Your task to perform on an android device: Show me popular games on the Play Store Image 0: 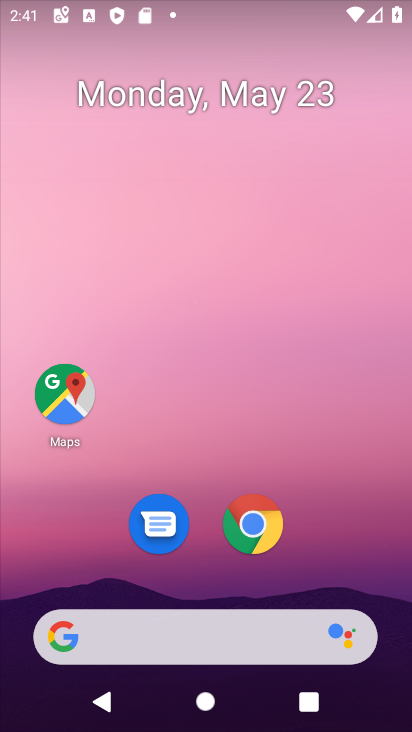
Step 0: drag from (196, 436) to (247, 0)
Your task to perform on an android device: Show me popular games on the Play Store Image 1: 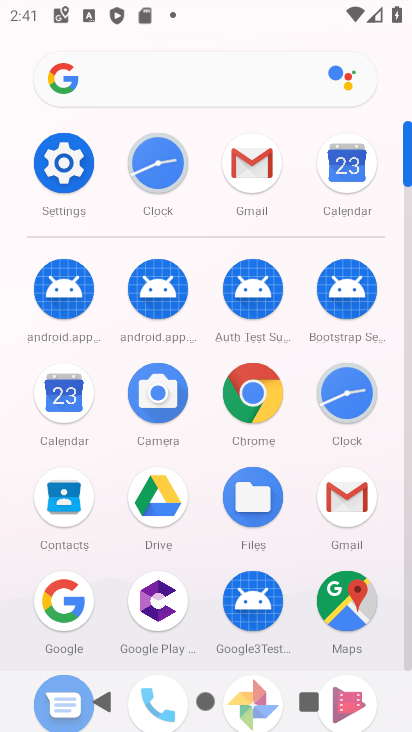
Step 1: drag from (191, 509) to (239, 245)
Your task to perform on an android device: Show me popular games on the Play Store Image 2: 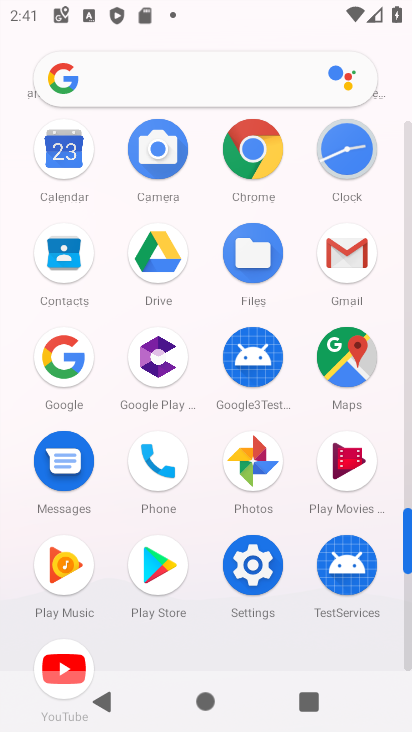
Step 2: click (155, 555)
Your task to perform on an android device: Show me popular games on the Play Store Image 3: 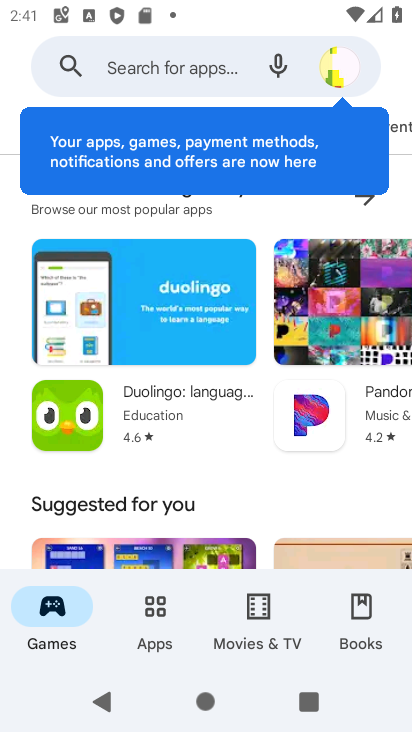
Step 3: drag from (221, 427) to (278, 0)
Your task to perform on an android device: Show me popular games on the Play Store Image 4: 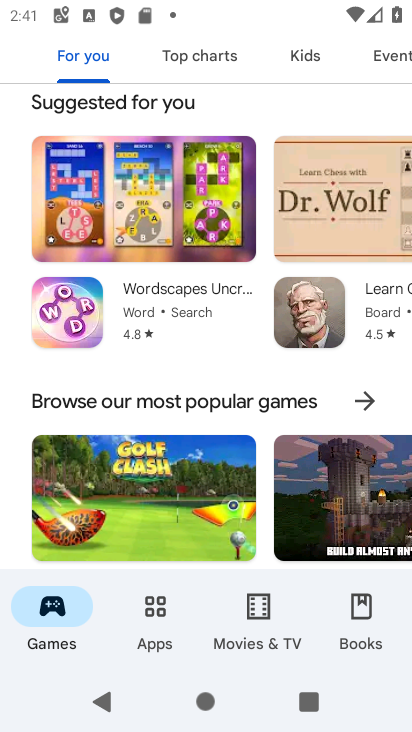
Step 4: click (368, 400)
Your task to perform on an android device: Show me popular games on the Play Store Image 5: 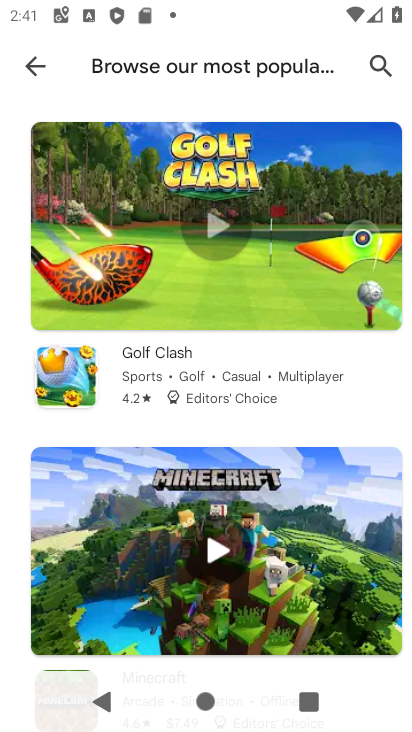
Step 5: task complete